Your task to perform on an android device: turn off improve location accuracy Image 0: 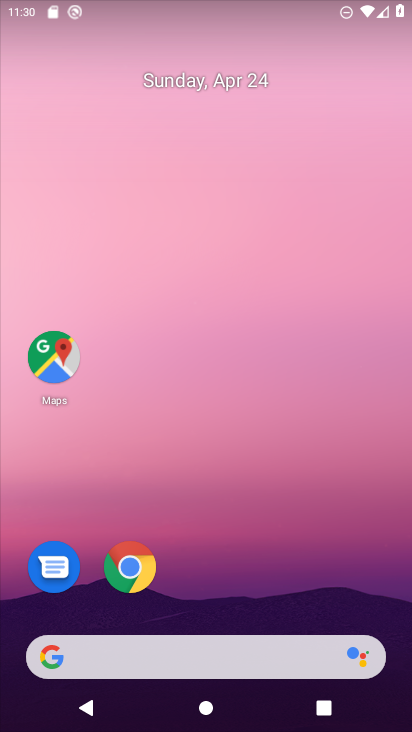
Step 0: drag from (294, 630) to (337, 149)
Your task to perform on an android device: turn off improve location accuracy Image 1: 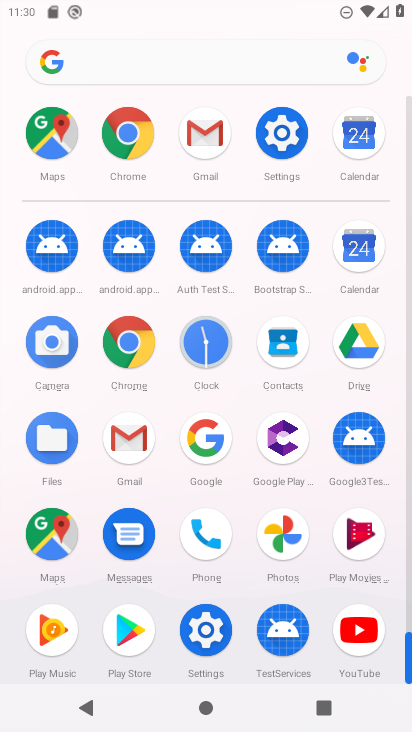
Step 1: click (196, 586)
Your task to perform on an android device: turn off improve location accuracy Image 2: 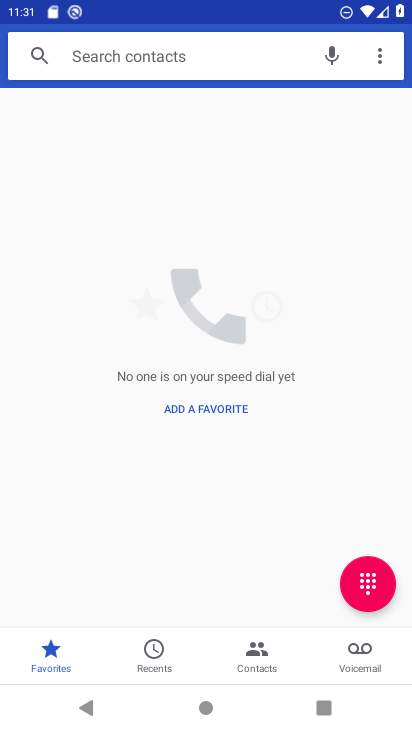
Step 2: press home button
Your task to perform on an android device: turn off improve location accuracy Image 3: 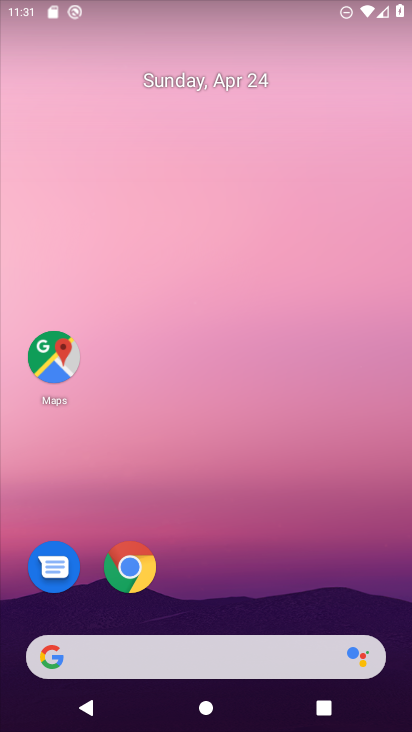
Step 3: drag from (103, 545) to (315, 19)
Your task to perform on an android device: turn off improve location accuracy Image 4: 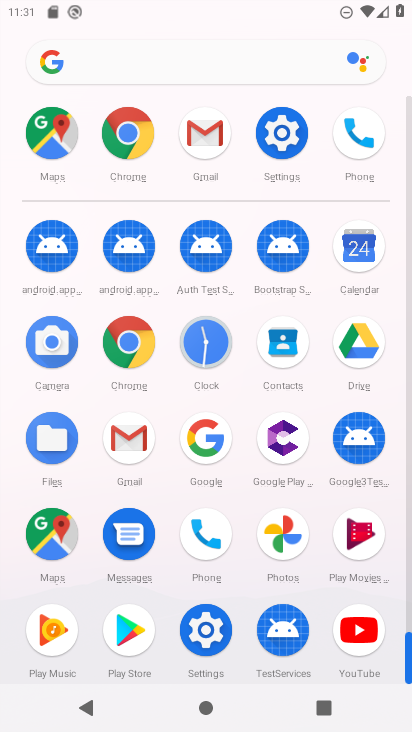
Step 4: click (289, 141)
Your task to perform on an android device: turn off improve location accuracy Image 5: 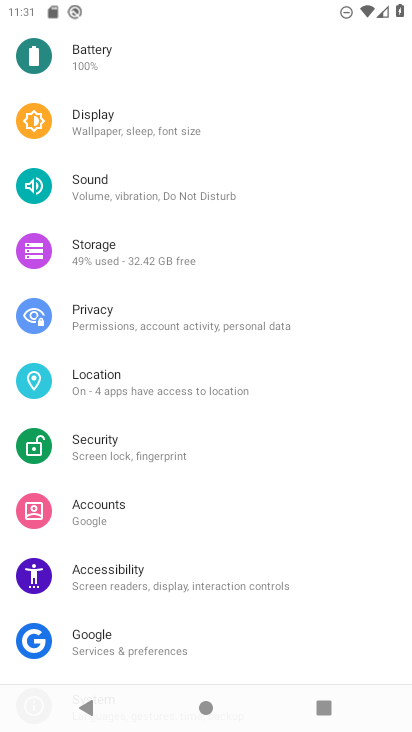
Step 5: click (176, 385)
Your task to perform on an android device: turn off improve location accuracy Image 6: 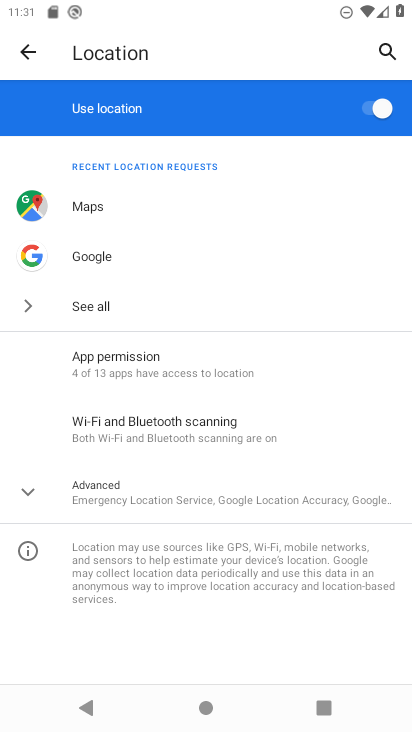
Step 6: click (144, 361)
Your task to perform on an android device: turn off improve location accuracy Image 7: 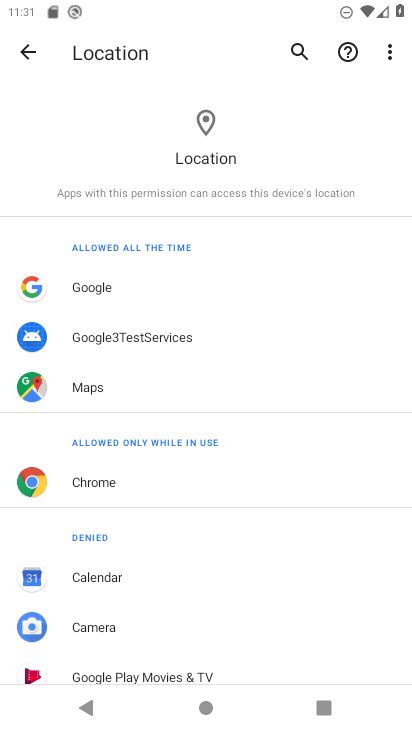
Step 7: drag from (123, 611) to (184, 52)
Your task to perform on an android device: turn off improve location accuracy Image 8: 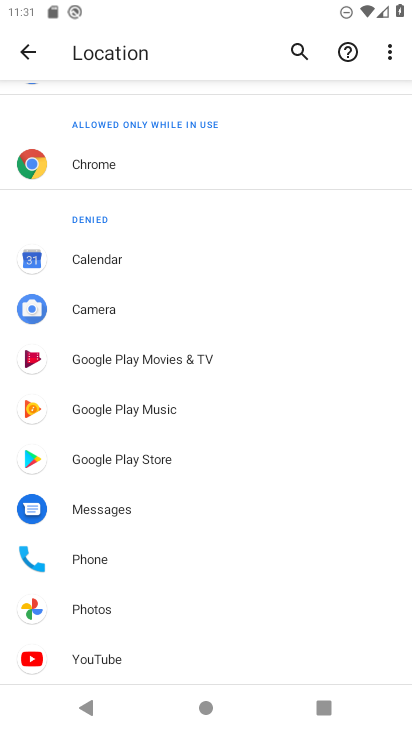
Step 8: press back button
Your task to perform on an android device: turn off improve location accuracy Image 9: 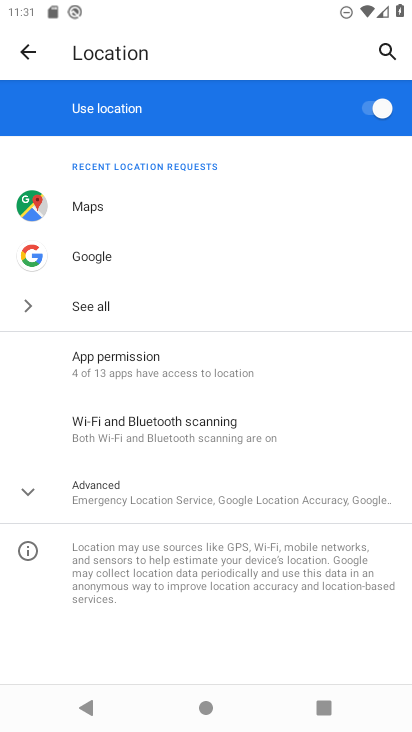
Step 9: click (121, 494)
Your task to perform on an android device: turn off improve location accuracy Image 10: 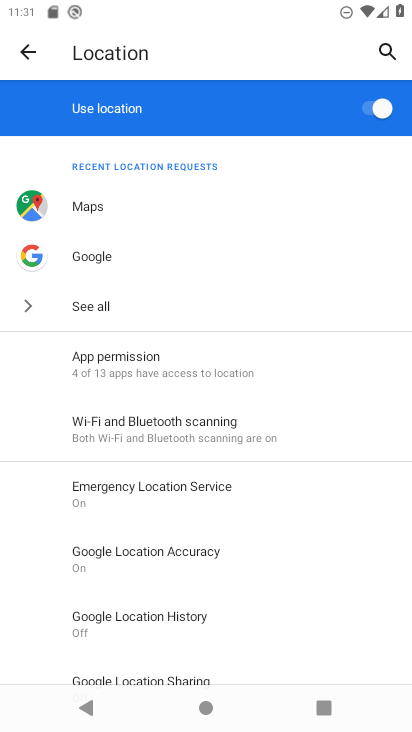
Step 10: click (162, 629)
Your task to perform on an android device: turn off improve location accuracy Image 11: 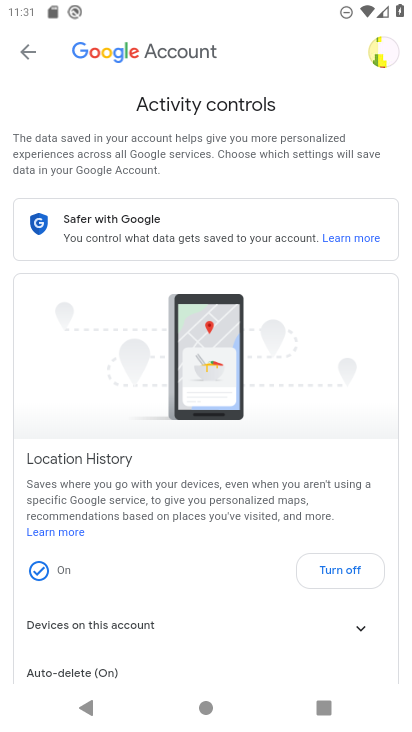
Step 11: task complete